Your task to perform on an android device: Go to network settings Image 0: 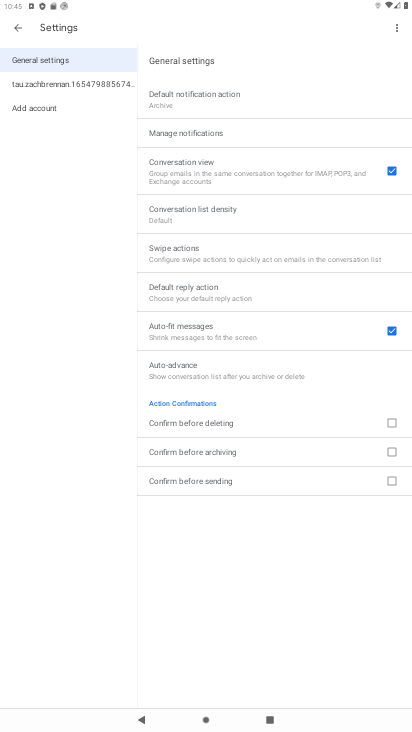
Step 0: press home button
Your task to perform on an android device: Go to network settings Image 1: 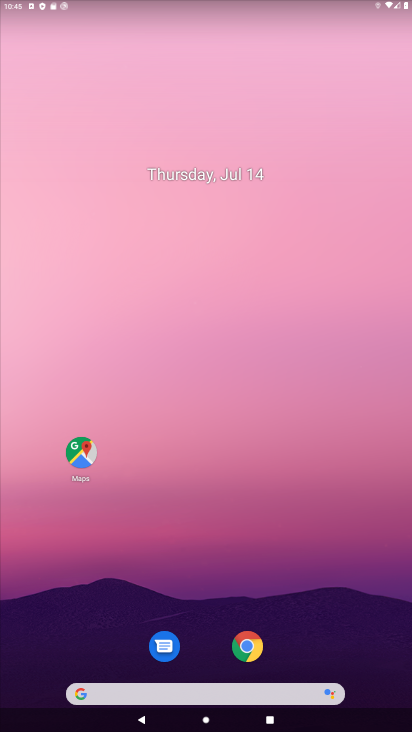
Step 1: drag from (201, 641) to (203, 175)
Your task to perform on an android device: Go to network settings Image 2: 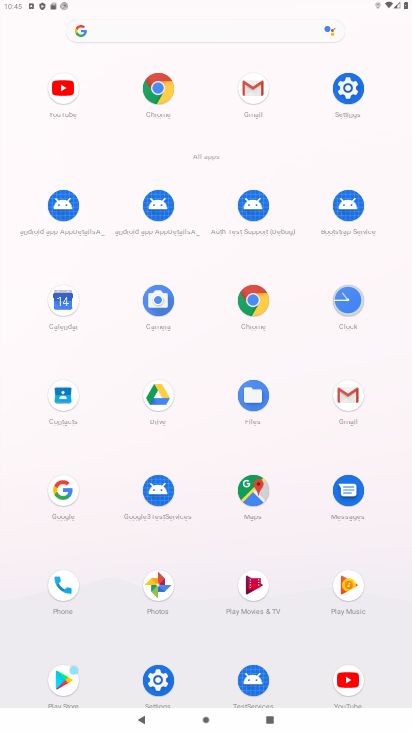
Step 2: click (341, 77)
Your task to perform on an android device: Go to network settings Image 3: 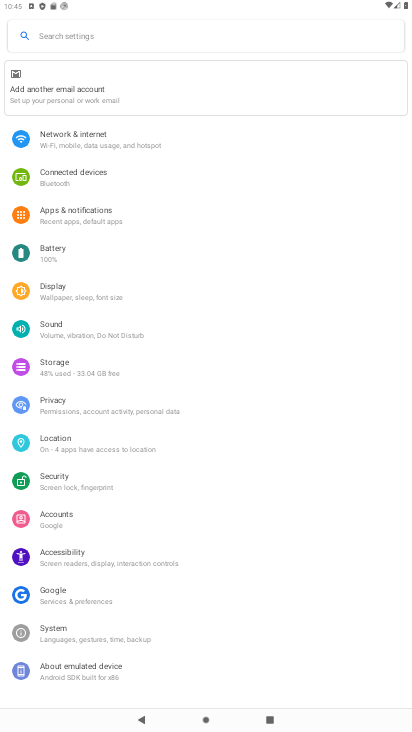
Step 3: click (72, 137)
Your task to perform on an android device: Go to network settings Image 4: 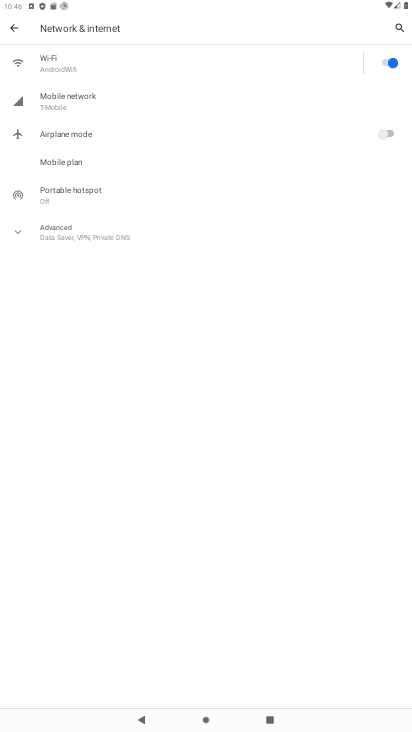
Step 4: task complete